Your task to perform on an android device: Open maps Image 0: 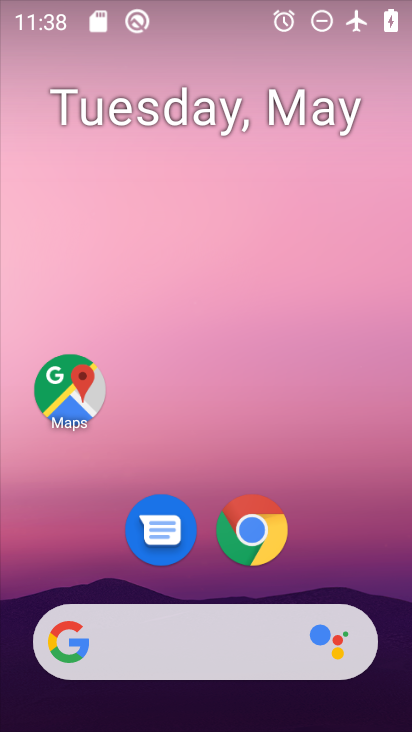
Step 0: drag from (318, 478) to (313, 102)
Your task to perform on an android device: Open maps Image 1: 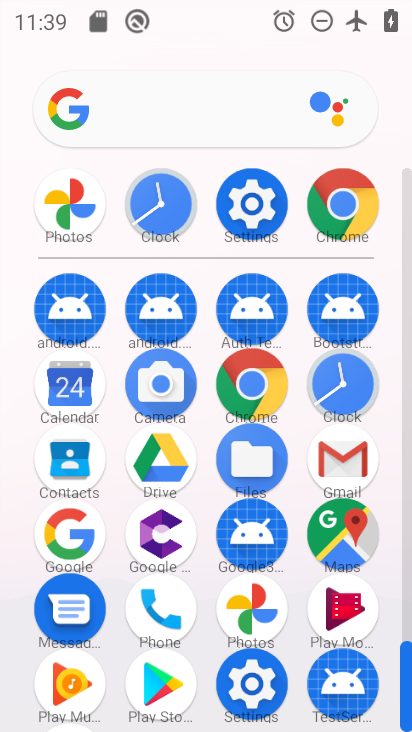
Step 1: click (328, 538)
Your task to perform on an android device: Open maps Image 2: 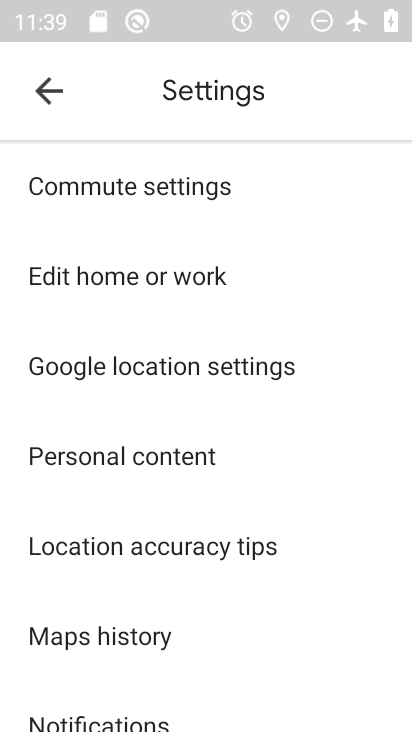
Step 2: task complete